Your task to perform on an android device: When is my next appointment? Image 0: 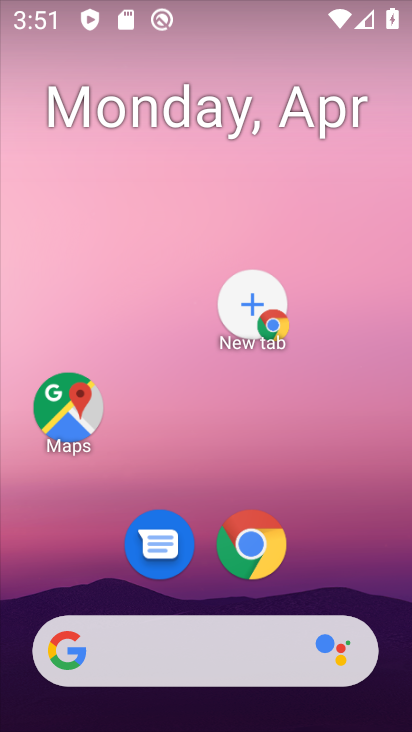
Step 0: drag from (323, 572) to (287, 3)
Your task to perform on an android device: When is my next appointment? Image 1: 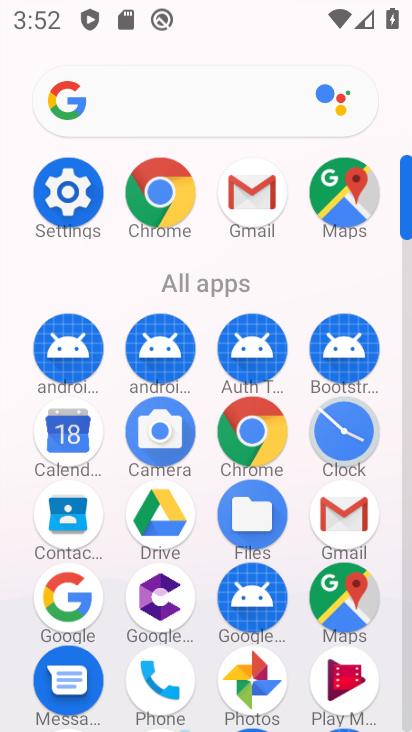
Step 1: click (65, 425)
Your task to perform on an android device: When is my next appointment? Image 2: 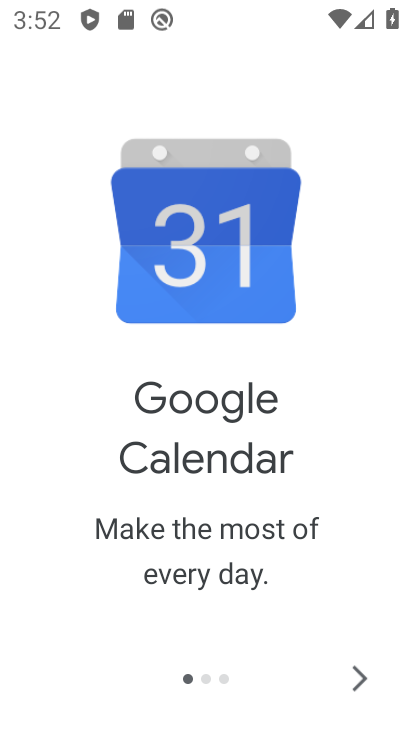
Step 2: click (363, 674)
Your task to perform on an android device: When is my next appointment? Image 3: 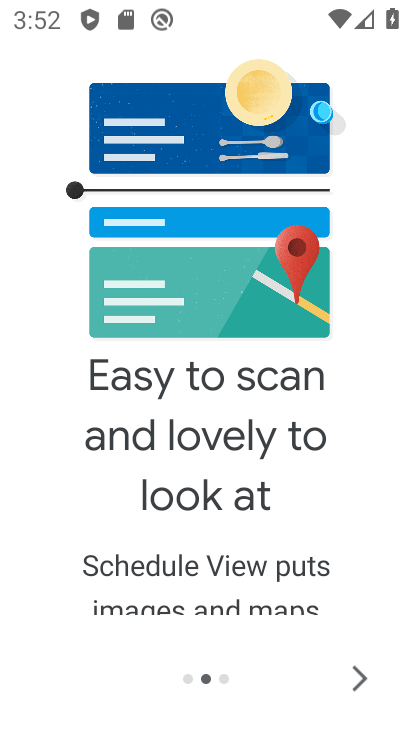
Step 3: click (363, 674)
Your task to perform on an android device: When is my next appointment? Image 4: 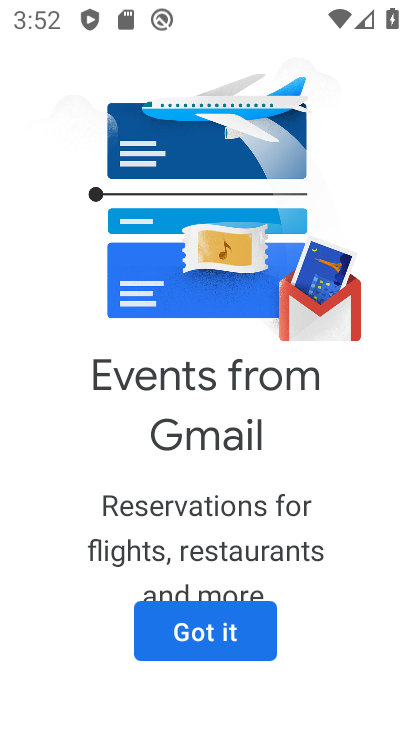
Step 4: click (363, 674)
Your task to perform on an android device: When is my next appointment? Image 5: 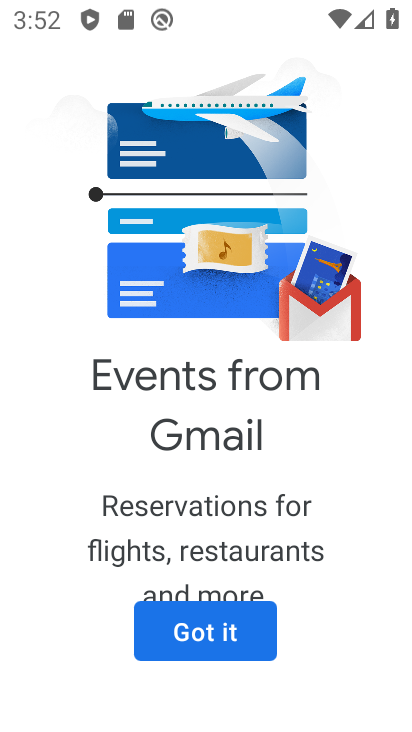
Step 5: click (253, 627)
Your task to perform on an android device: When is my next appointment? Image 6: 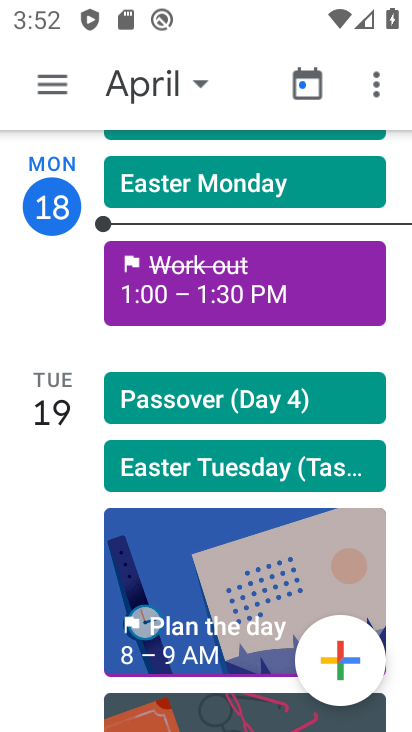
Step 6: click (194, 81)
Your task to perform on an android device: When is my next appointment? Image 7: 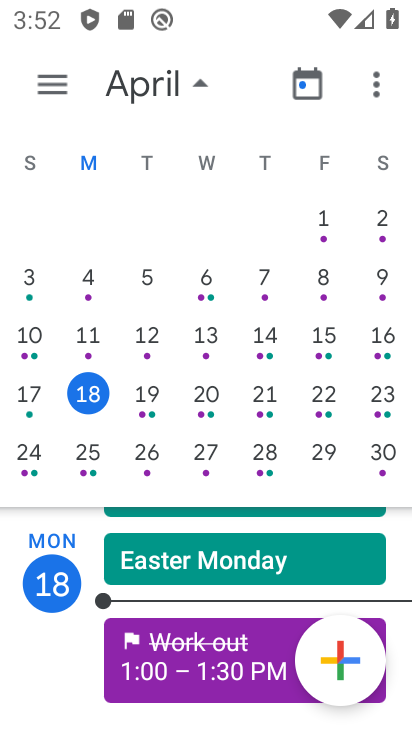
Step 7: task complete